Your task to perform on an android device: check data usage Image 0: 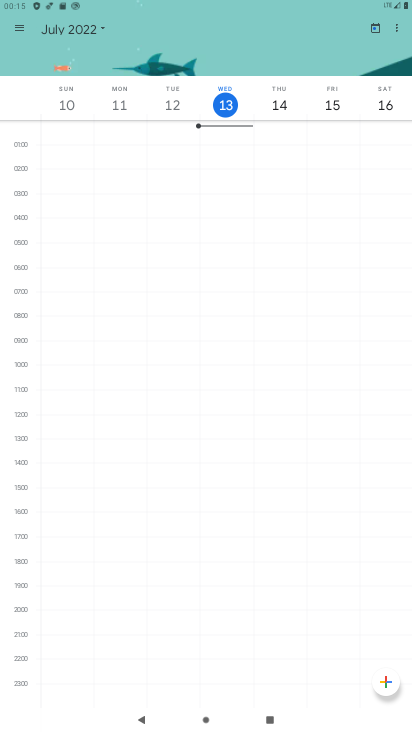
Step 0: press home button
Your task to perform on an android device: check data usage Image 1: 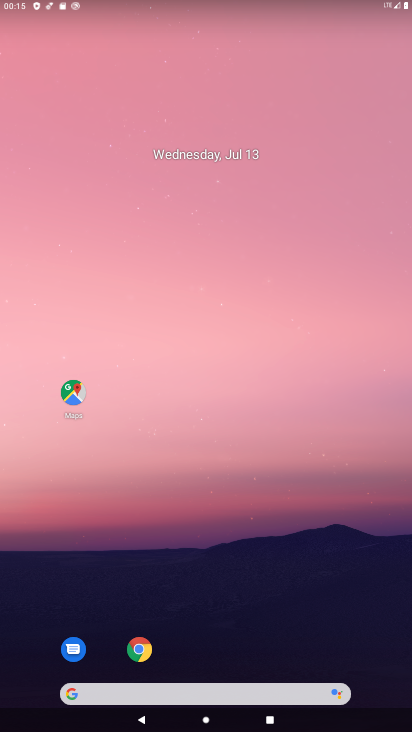
Step 1: drag from (263, 677) to (224, 511)
Your task to perform on an android device: check data usage Image 2: 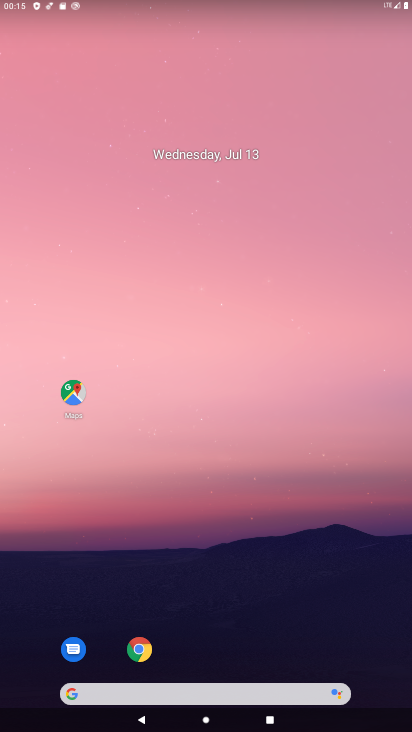
Step 2: drag from (354, 6) to (346, 355)
Your task to perform on an android device: check data usage Image 3: 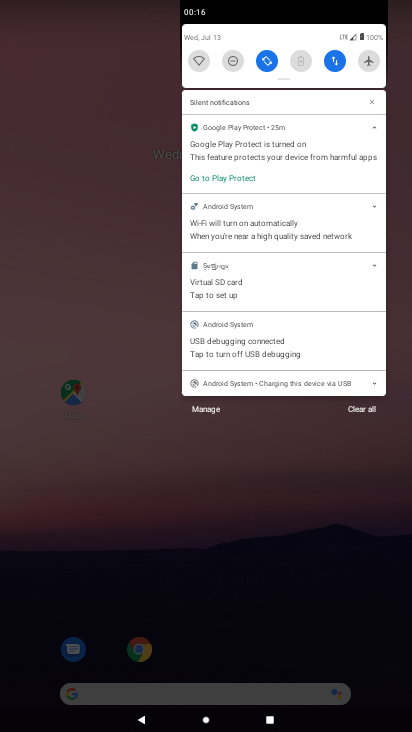
Step 3: click (340, 56)
Your task to perform on an android device: check data usage Image 4: 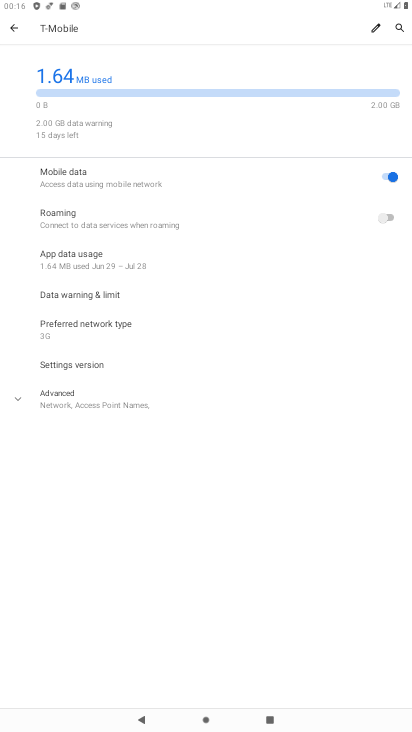
Step 4: task complete